Your task to perform on an android device: turn off priority inbox in the gmail app Image 0: 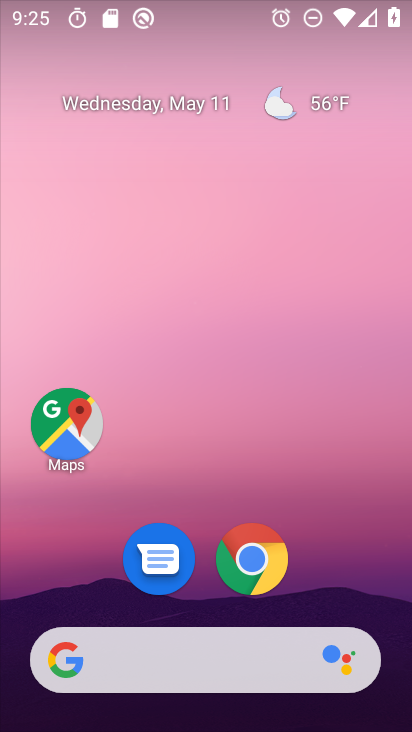
Step 0: drag from (330, 537) to (313, 371)
Your task to perform on an android device: turn off priority inbox in the gmail app Image 1: 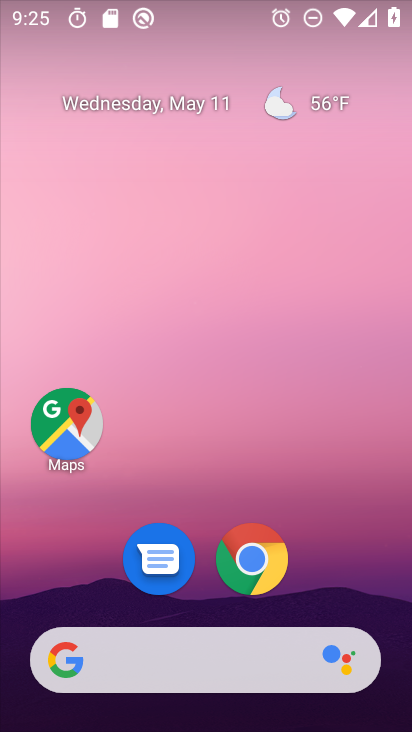
Step 1: drag from (339, 570) to (325, 239)
Your task to perform on an android device: turn off priority inbox in the gmail app Image 2: 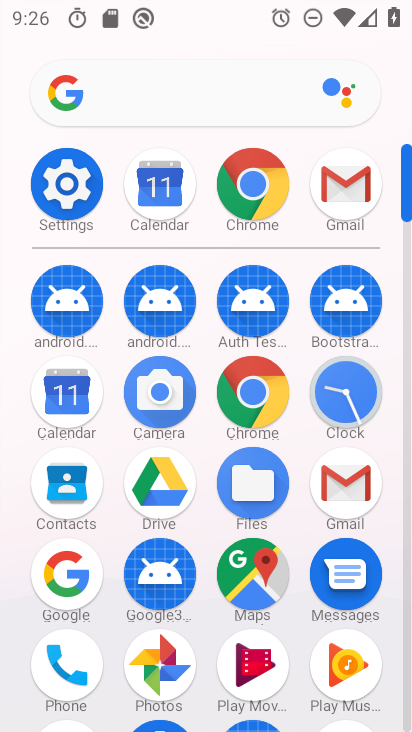
Step 2: click (360, 173)
Your task to perform on an android device: turn off priority inbox in the gmail app Image 3: 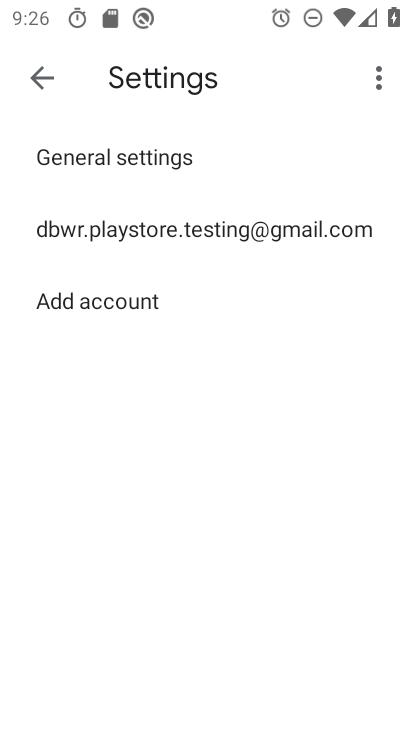
Step 3: click (245, 229)
Your task to perform on an android device: turn off priority inbox in the gmail app Image 4: 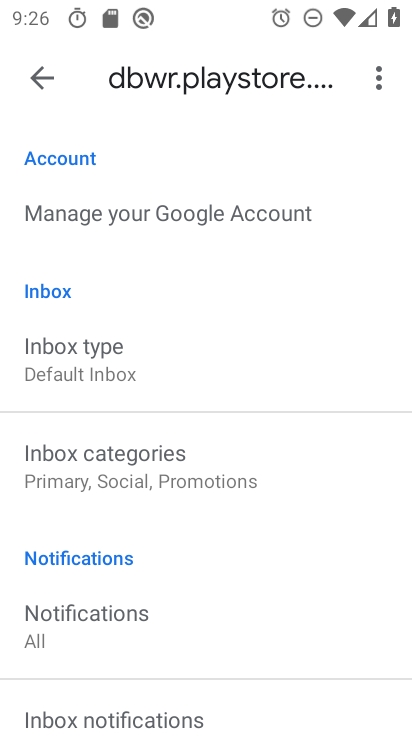
Step 4: task complete